Your task to perform on an android device: Open the Play Movies app and select the watchlist tab. Image 0: 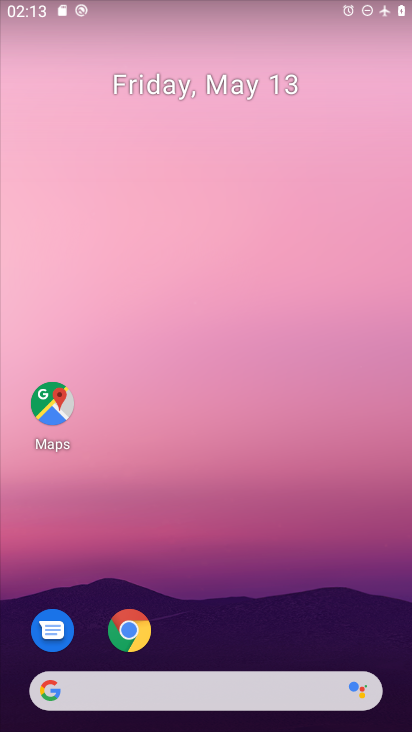
Step 0: drag from (215, 702) to (342, 189)
Your task to perform on an android device: Open the Play Movies app and select the watchlist tab. Image 1: 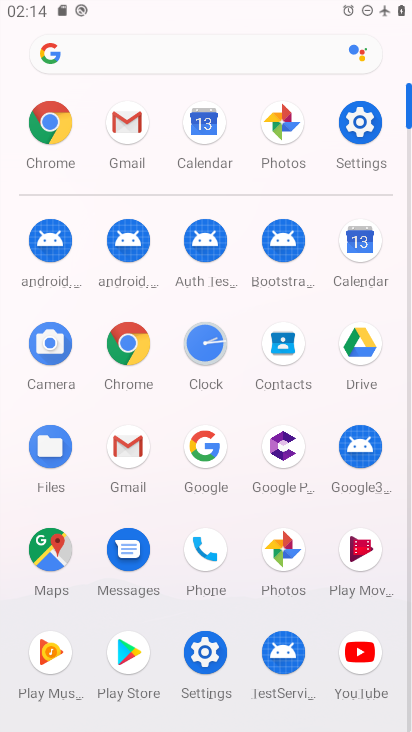
Step 1: click (362, 535)
Your task to perform on an android device: Open the Play Movies app and select the watchlist tab. Image 2: 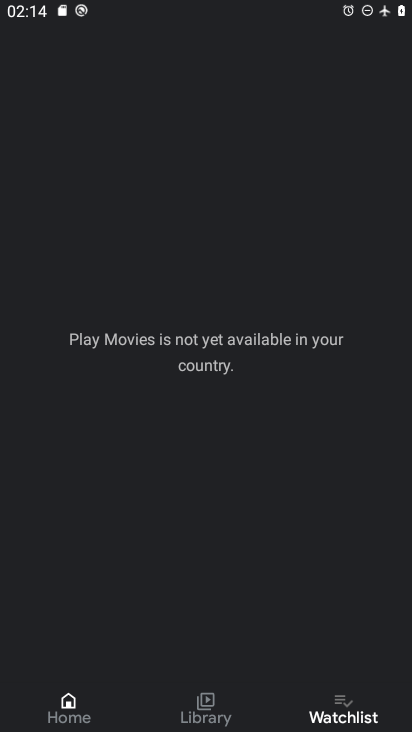
Step 2: task complete